Your task to perform on an android device: turn off airplane mode Image 0: 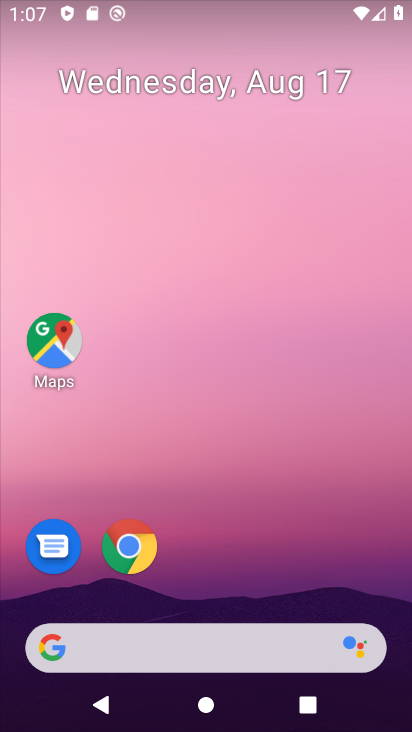
Step 0: drag from (247, 570) to (279, 100)
Your task to perform on an android device: turn off airplane mode Image 1: 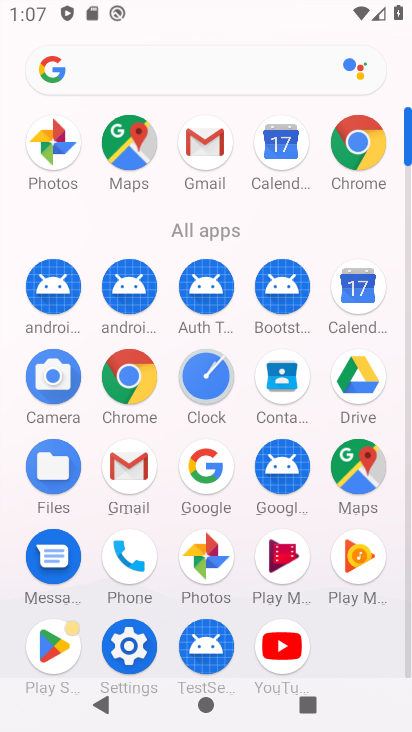
Step 1: click (142, 633)
Your task to perform on an android device: turn off airplane mode Image 2: 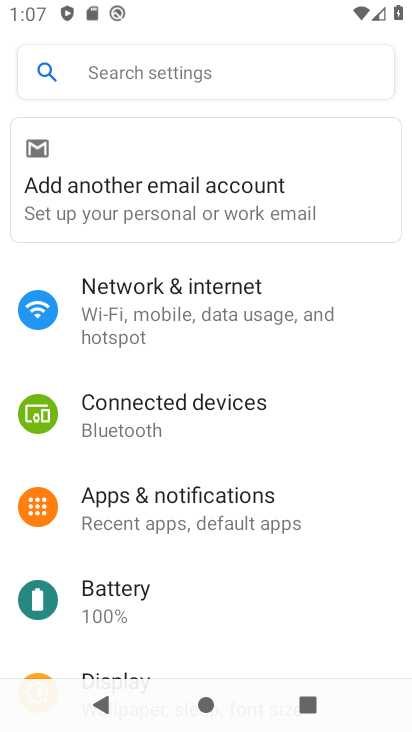
Step 2: click (203, 288)
Your task to perform on an android device: turn off airplane mode Image 3: 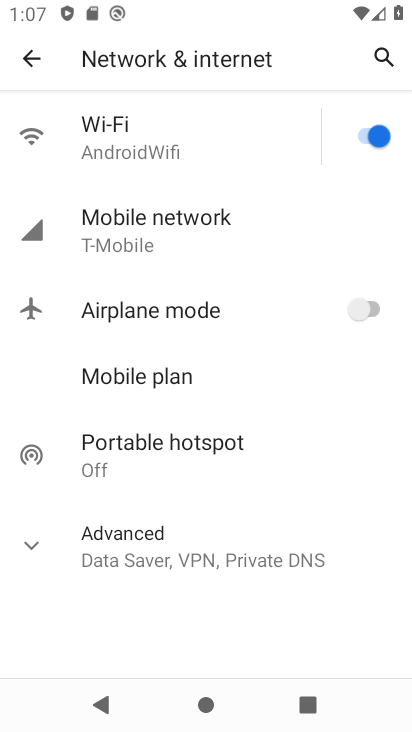
Step 3: task complete